Your task to perform on an android device: Go to settings Image 0: 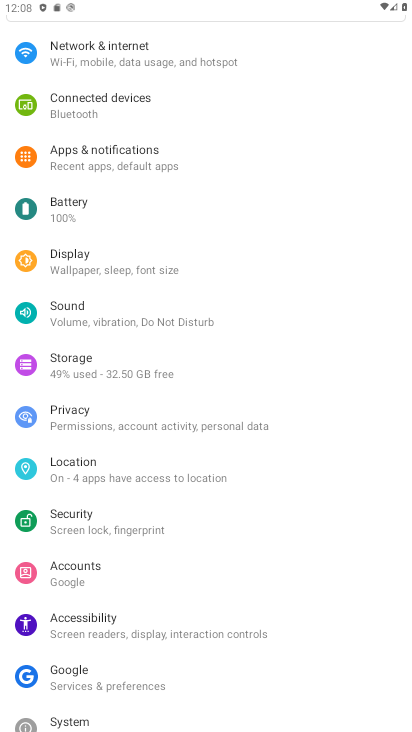
Step 0: task complete